Your task to perform on an android device: Open my contact list Image 0: 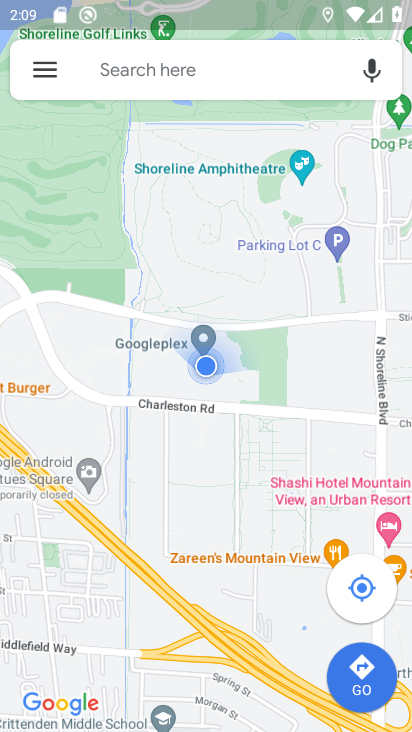
Step 0: click (48, 54)
Your task to perform on an android device: Open my contact list Image 1: 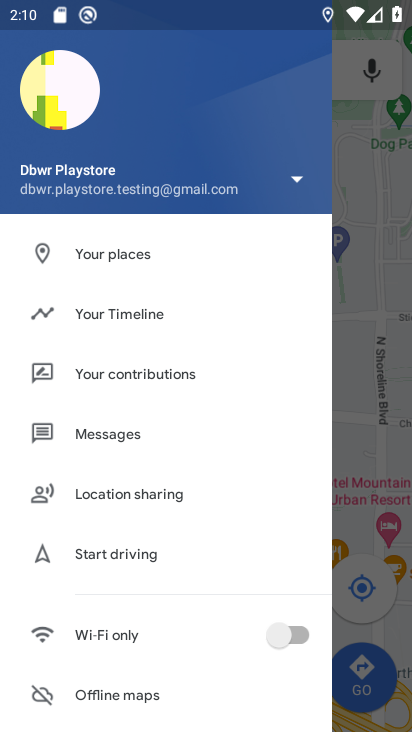
Step 1: press home button
Your task to perform on an android device: Open my contact list Image 2: 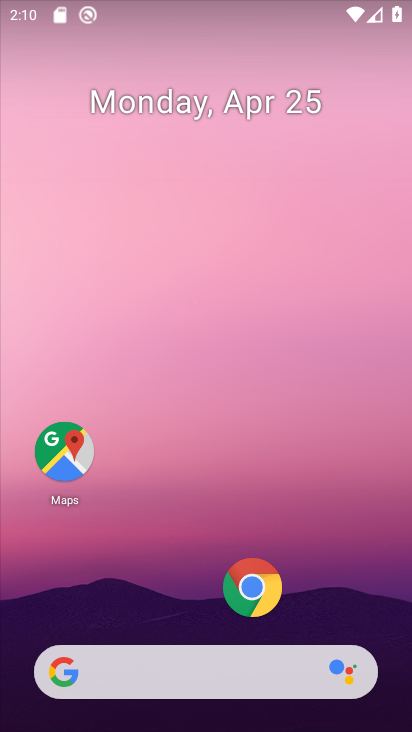
Step 2: drag from (183, 596) to (200, 9)
Your task to perform on an android device: Open my contact list Image 3: 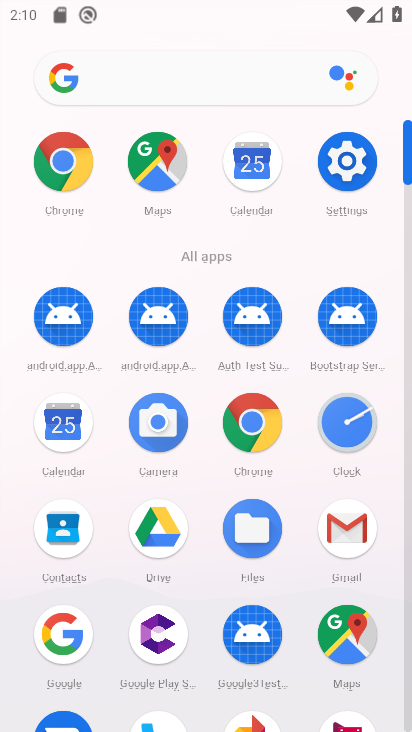
Step 3: click (59, 521)
Your task to perform on an android device: Open my contact list Image 4: 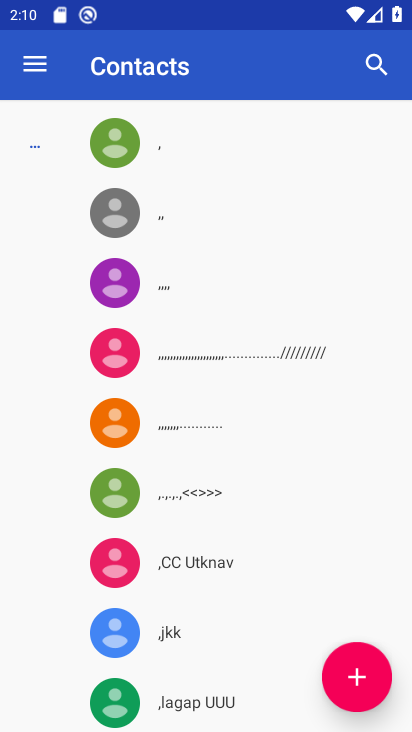
Step 4: task complete